Your task to perform on an android device: turn on the 12-hour format for clock Image 0: 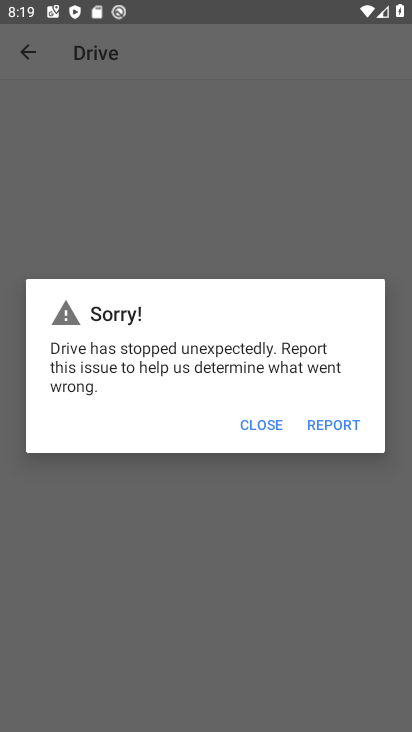
Step 0: press home button
Your task to perform on an android device: turn on the 12-hour format for clock Image 1: 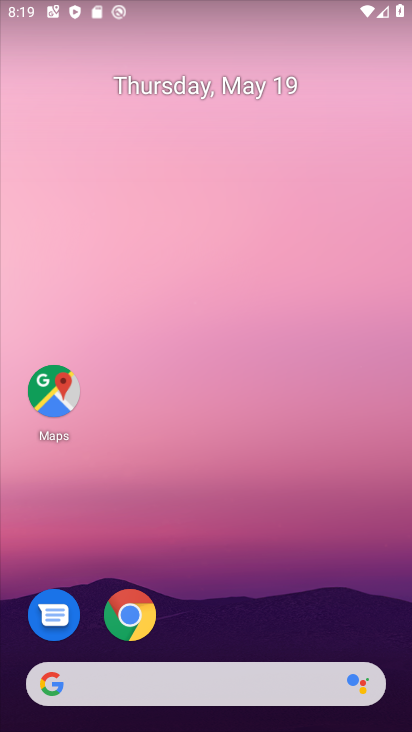
Step 1: drag from (307, 649) to (300, 135)
Your task to perform on an android device: turn on the 12-hour format for clock Image 2: 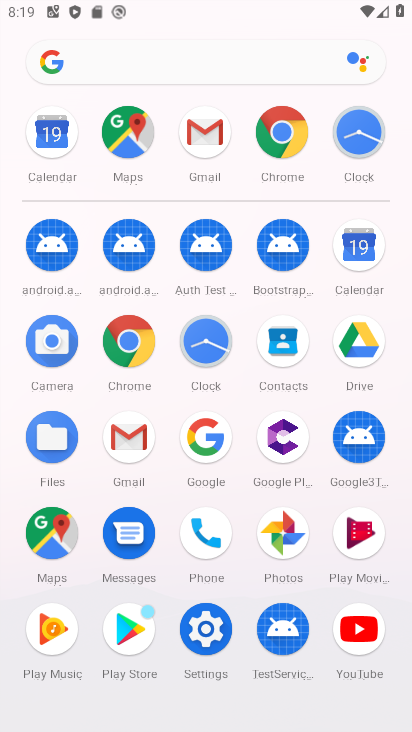
Step 2: click (371, 164)
Your task to perform on an android device: turn on the 12-hour format for clock Image 3: 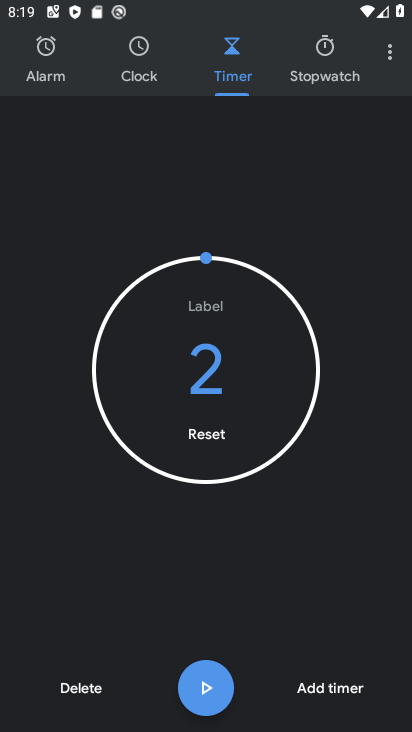
Step 3: click (394, 67)
Your task to perform on an android device: turn on the 12-hour format for clock Image 4: 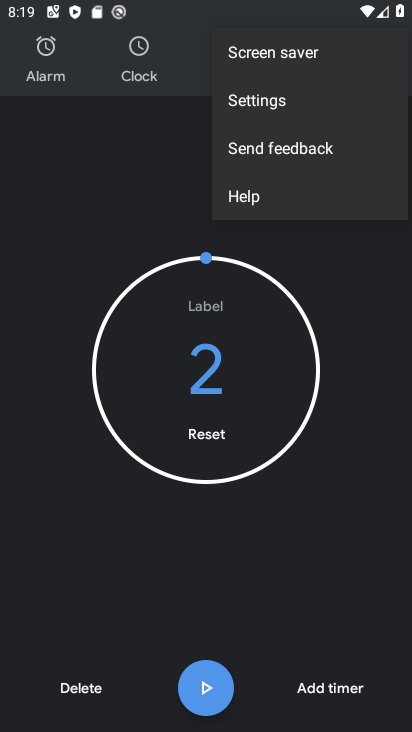
Step 4: click (328, 100)
Your task to perform on an android device: turn on the 12-hour format for clock Image 5: 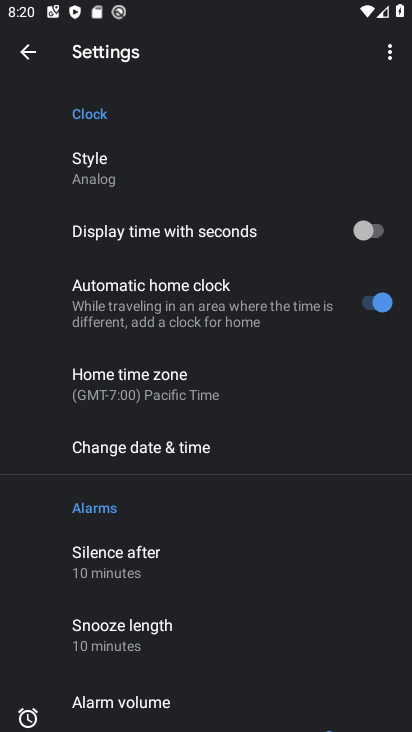
Step 5: click (195, 456)
Your task to perform on an android device: turn on the 12-hour format for clock Image 6: 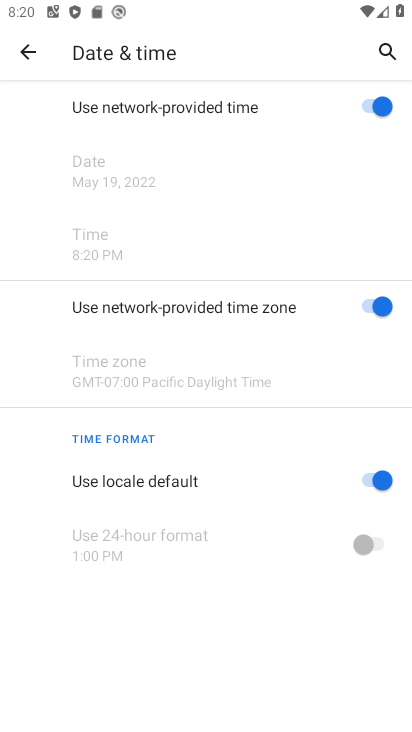
Step 6: task complete